Your task to perform on an android device: turn off improve location accuracy Image 0: 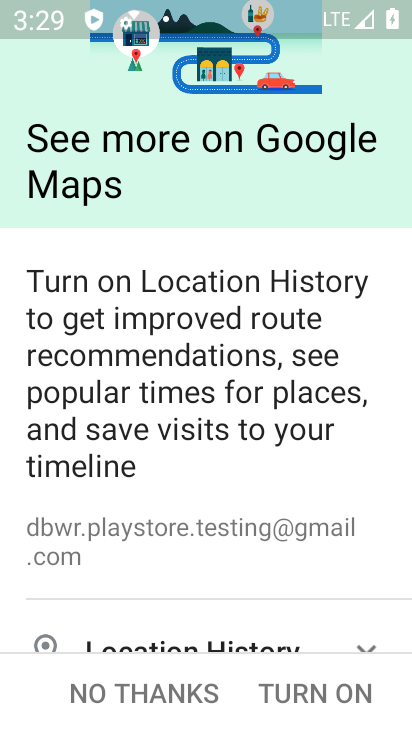
Step 0: press home button
Your task to perform on an android device: turn off improve location accuracy Image 1: 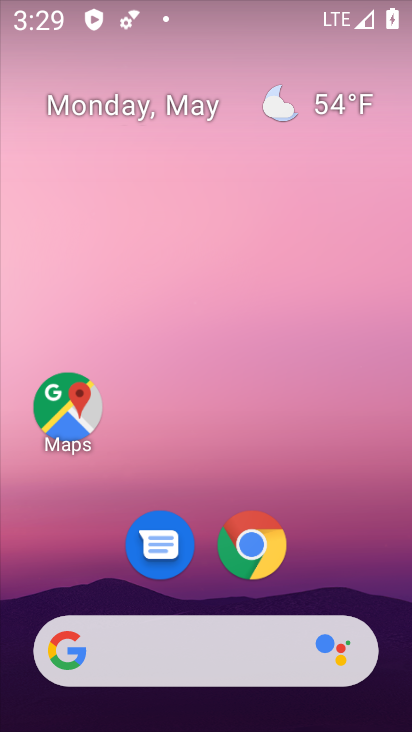
Step 1: drag from (396, 657) to (292, 110)
Your task to perform on an android device: turn off improve location accuracy Image 2: 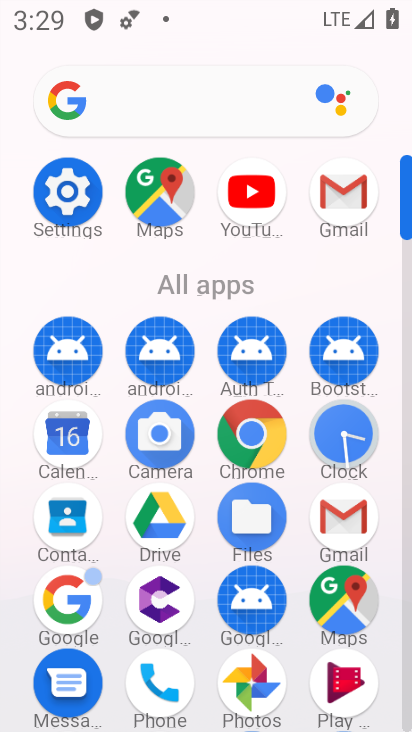
Step 2: click (411, 670)
Your task to perform on an android device: turn off improve location accuracy Image 3: 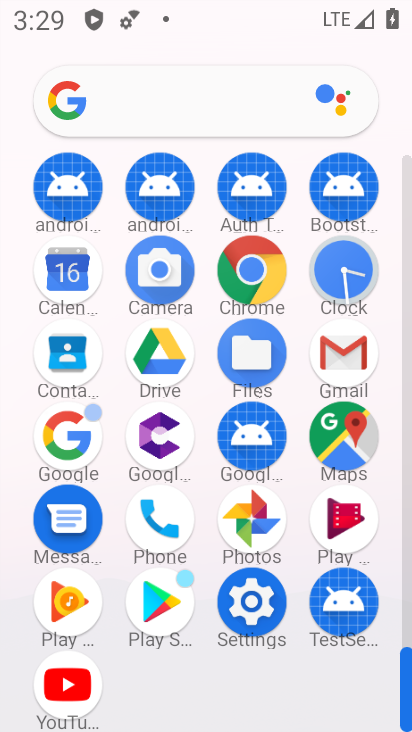
Step 3: click (245, 604)
Your task to perform on an android device: turn off improve location accuracy Image 4: 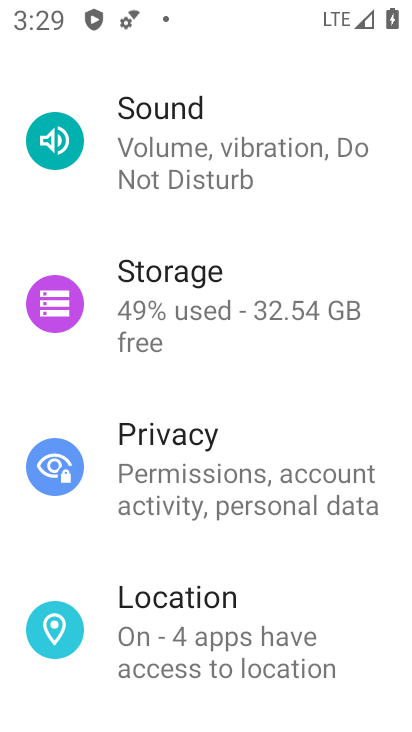
Step 4: click (170, 640)
Your task to perform on an android device: turn off improve location accuracy Image 5: 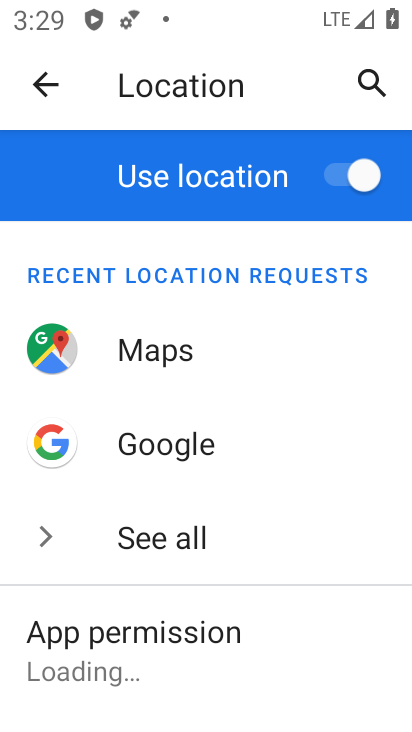
Step 5: drag from (322, 669) to (266, 168)
Your task to perform on an android device: turn off improve location accuracy Image 6: 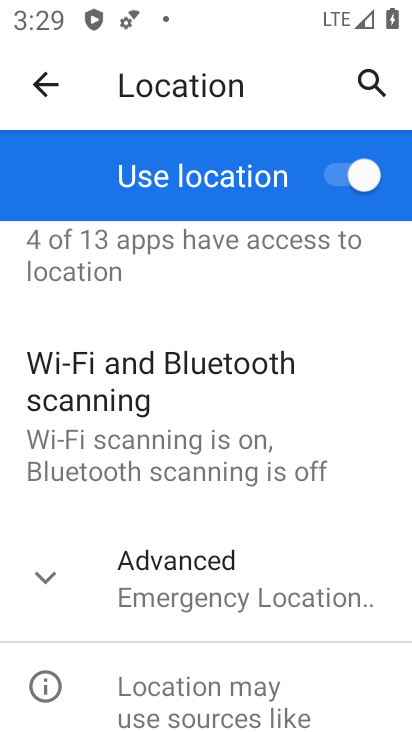
Step 6: click (49, 579)
Your task to perform on an android device: turn off improve location accuracy Image 7: 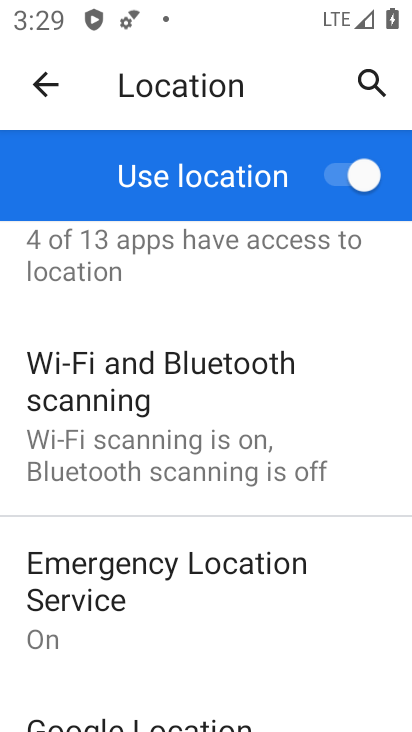
Step 7: drag from (269, 649) to (254, 206)
Your task to perform on an android device: turn off improve location accuracy Image 8: 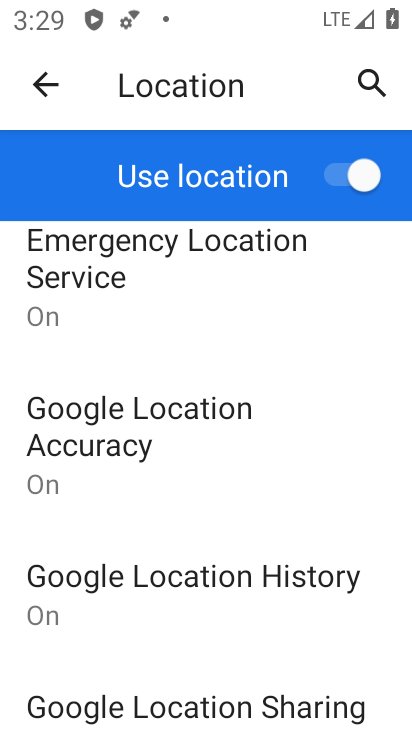
Step 8: click (103, 427)
Your task to perform on an android device: turn off improve location accuracy Image 9: 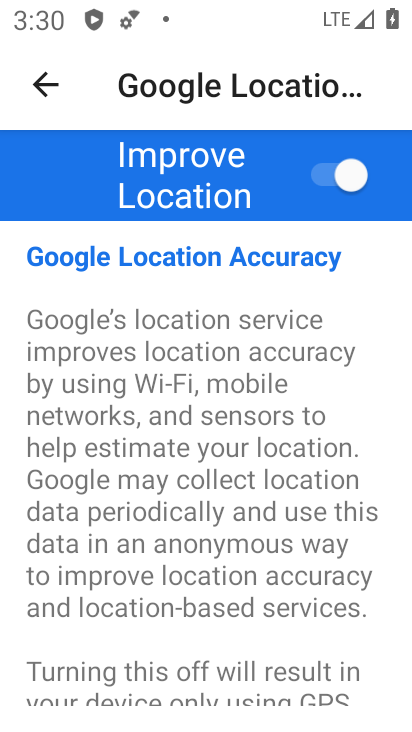
Step 9: click (325, 169)
Your task to perform on an android device: turn off improve location accuracy Image 10: 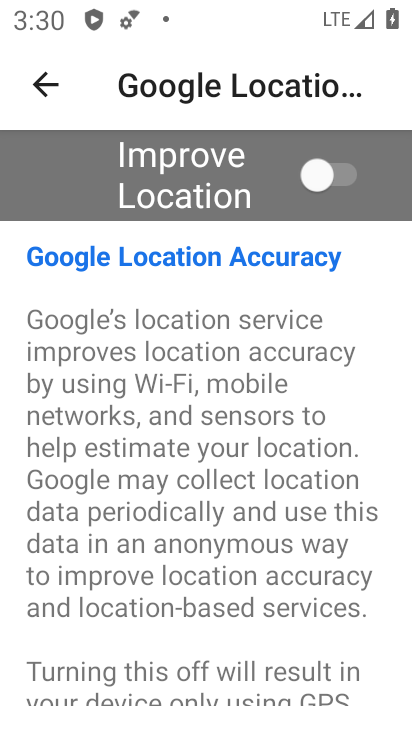
Step 10: task complete